Your task to perform on an android device: toggle javascript in the chrome app Image 0: 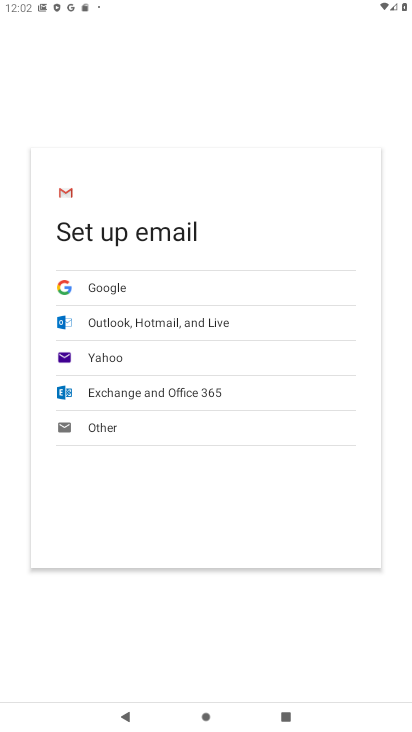
Step 0: press home button
Your task to perform on an android device: toggle javascript in the chrome app Image 1: 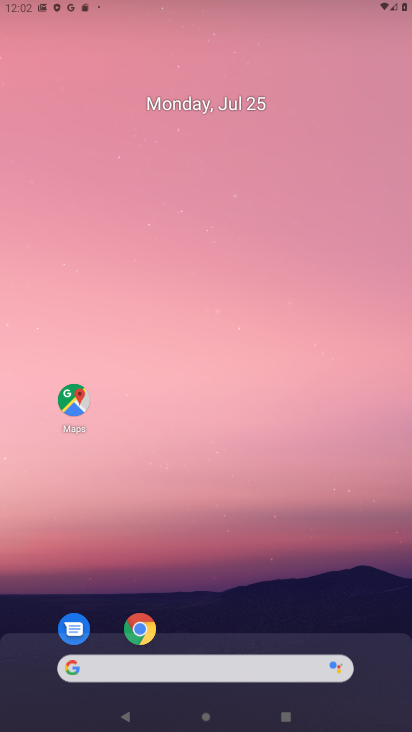
Step 1: drag from (299, 624) to (228, 16)
Your task to perform on an android device: toggle javascript in the chrome app Image 2: 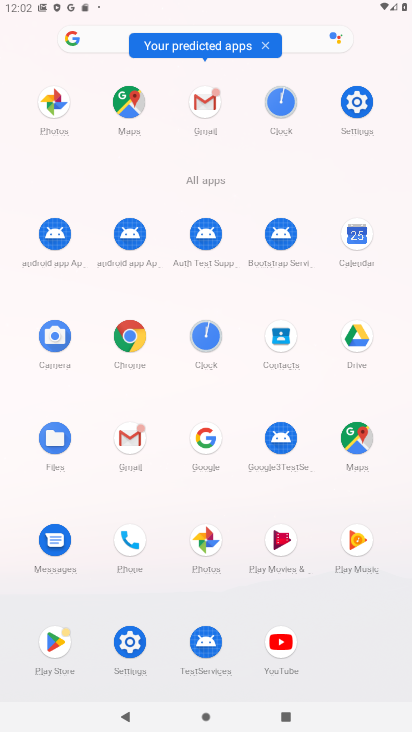
Step 2: click (129, 336)
Your task to perform on an android device: toggle javascript in the chrome app Image 3: 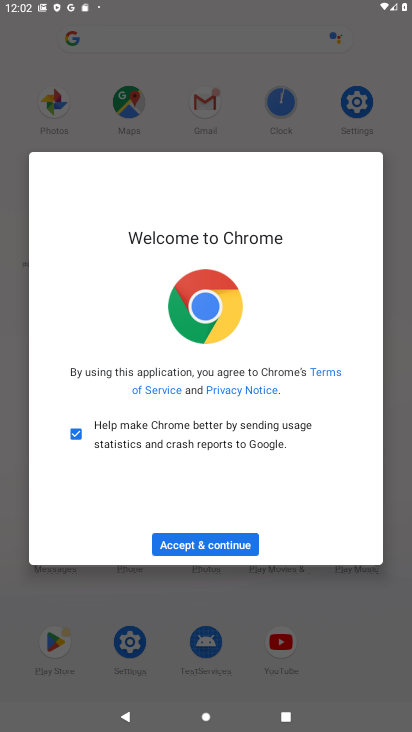
Step 3: click (233, 550)
Your task to perform on an android device: toggle javascript in the chrome app Image 4: 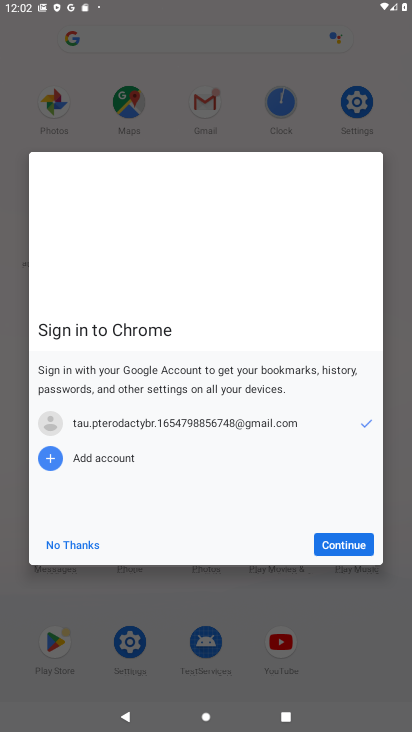
Step 4: click (363, 549)
Your task to perform on an android device: toggle javascript in the chrome app Image 5: 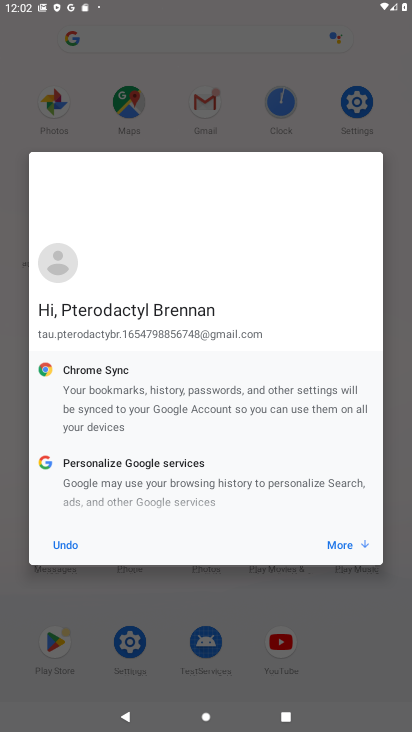
Step 5: click (363, 549)
Your task to perform on an android device: toggle javascript in the chrome app Image 6: 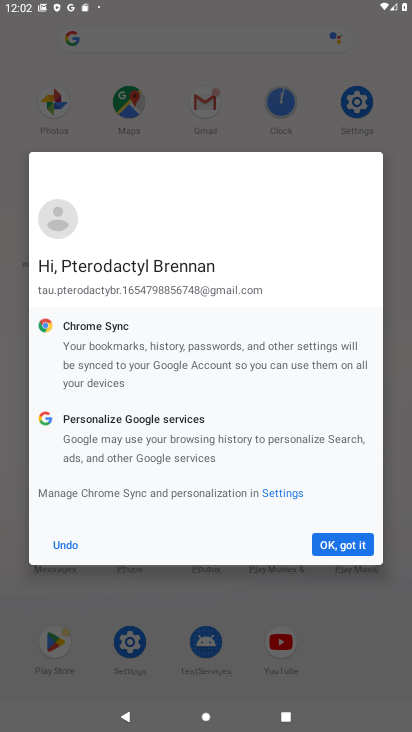
Step 6: click (363, 549)
Your task to perform on an android device: toggle javascript in the chrome app Image 7: 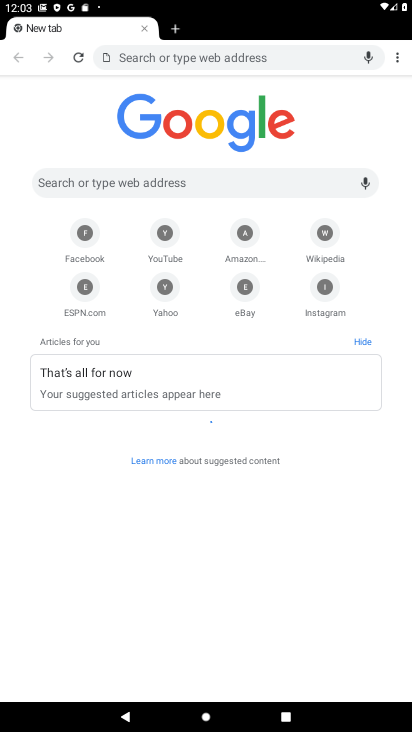
Step 7: drag from (402, 54) to (272, 270)
Your task to perform on an android device: toggle javascript in the chrome app Image 8: 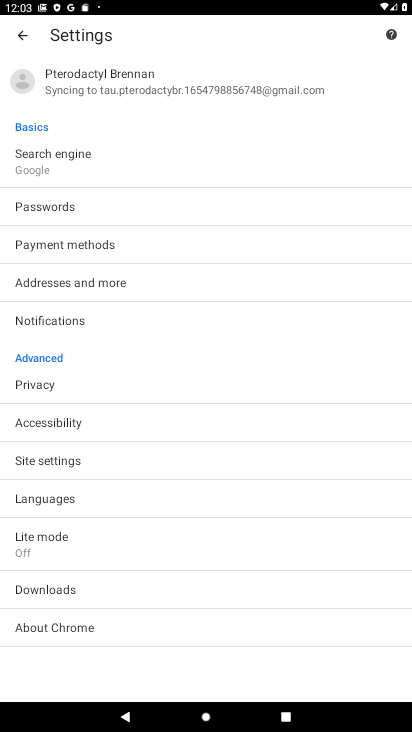
Step 8: click (63, 462)
Your task to perform on an android device: toggle javascript in the chrome app Image 9: 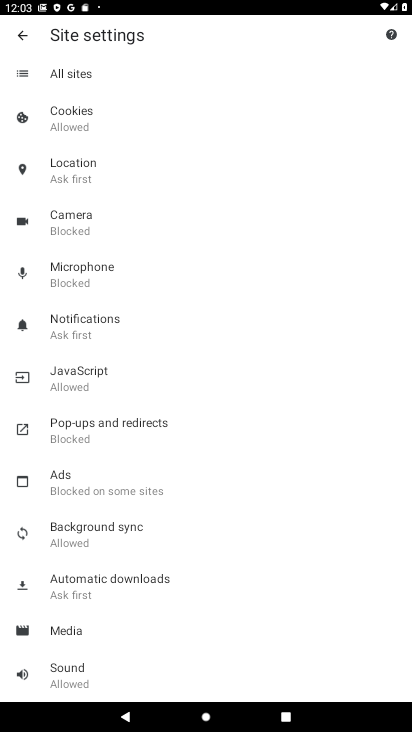
Step 9: click (95, 370)
Your task to perform on an android device: toggle javascript in the chrome app Image 10: 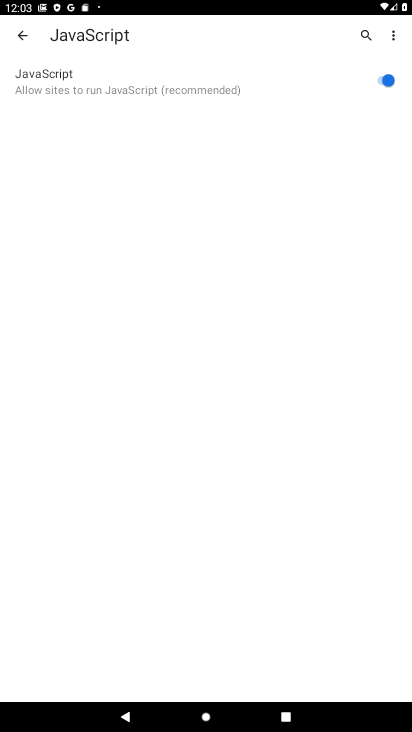
Step 10: click (387, 88)
Your task to perform on an android device: toggle javascript in the chrome app Image 11: 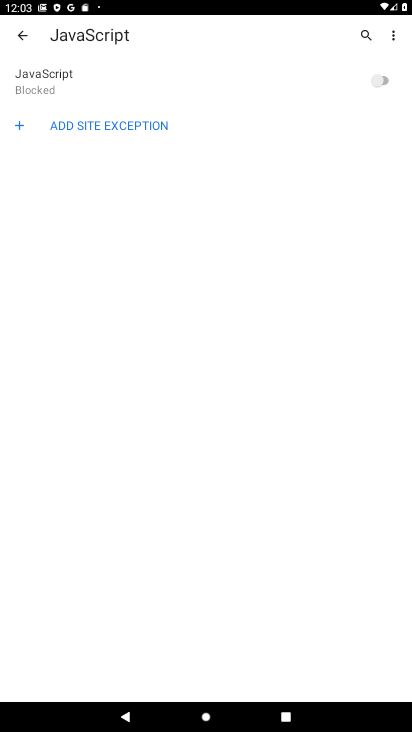
Step 11: task complete